Your task to perform on an android device: toggle notification dots Image 0: 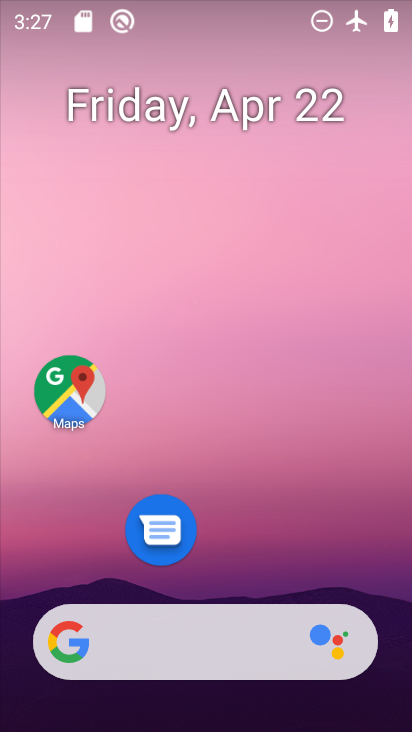
Step 0: drag from (284, 582) to (265, 140)
Your task to perform on an android device: toggle notification dots Image 1: 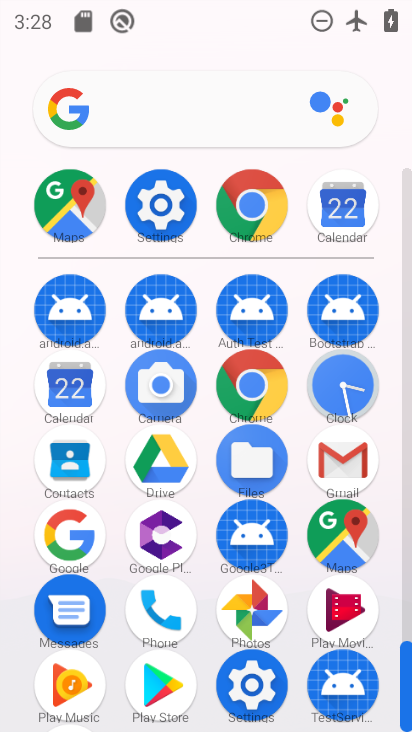
Step 1: click (154, 206)
Your task to perform on an android device: toggle notification dots Image 2: 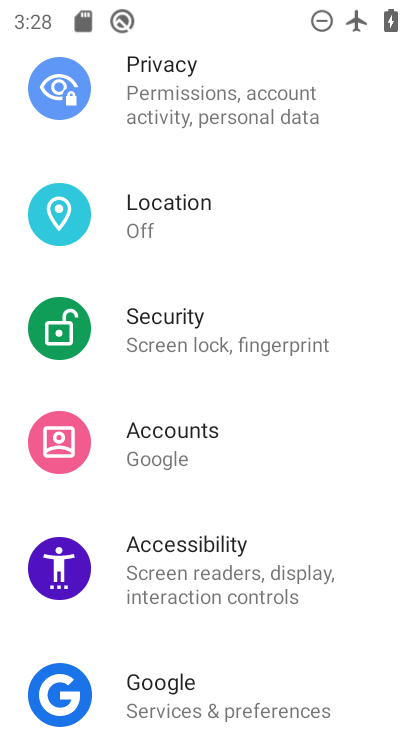
Step 2: drag from (240, 261) to (262, 632)
Your task to perform on an android device: toggle notification dots Image 3: 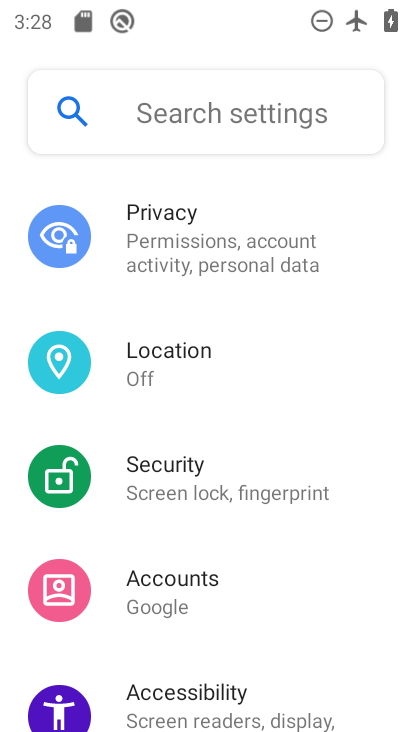
Step 3: drag from (229, 197) to (204, 682)
Your task to perform on an android device: toggle notification dots Image 4: 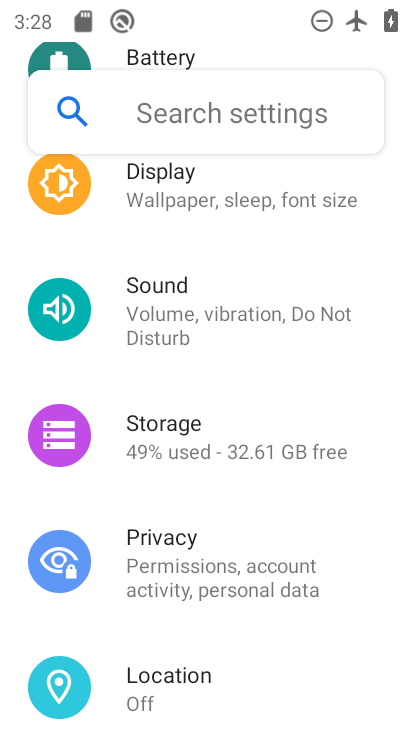
Step 4: drag from (186, 251) to (196, 596)
Your task to perform on an android device: toggle notification dots Image 5: 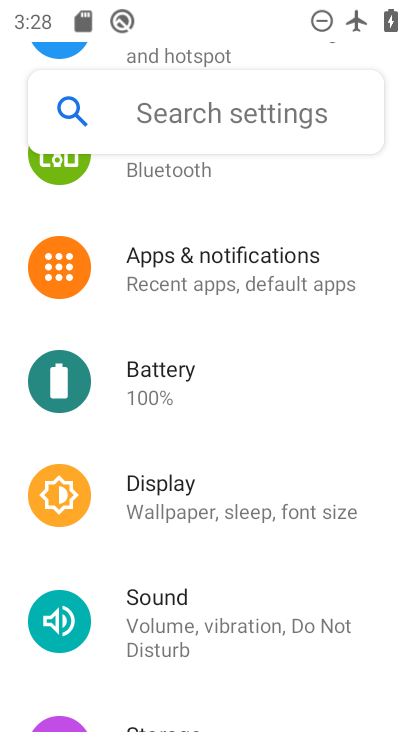
Step 5: click (211, 254)
Your task to perform on an android device: toggle notification dots Image 6: 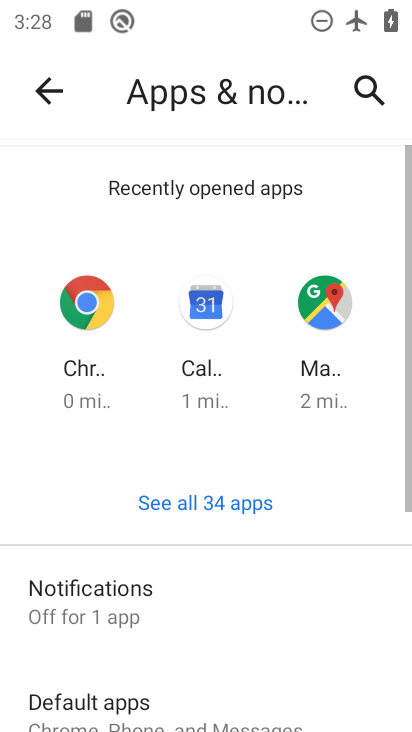
Step 6: drag from (164, 584) to (145, 200)
Your task to perform on an android device: toggle notification dots Image 7: 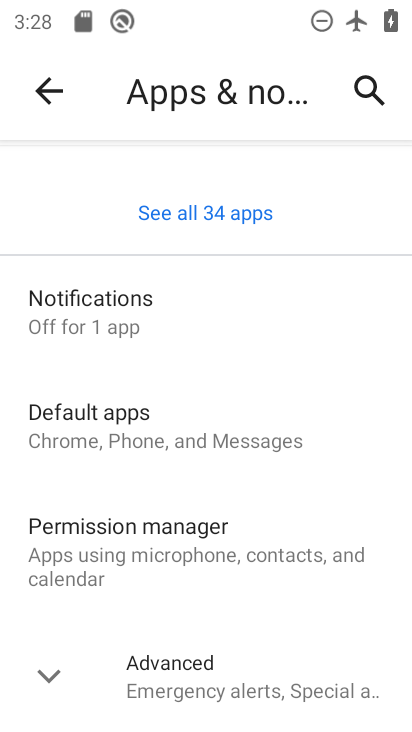
Step 7: click (107, 299)
Your task to perform on an android device: toggle notification dots Image 8: 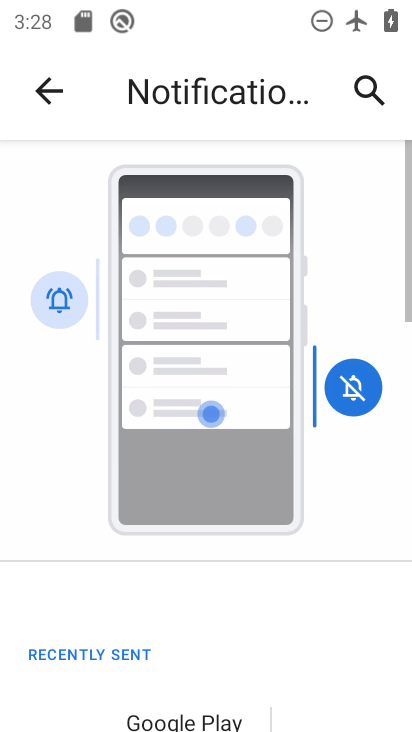
Step 8: drag from (192, 608) to (155, 137)
Your task to perform on an android device: toggle notification dots Image 9: 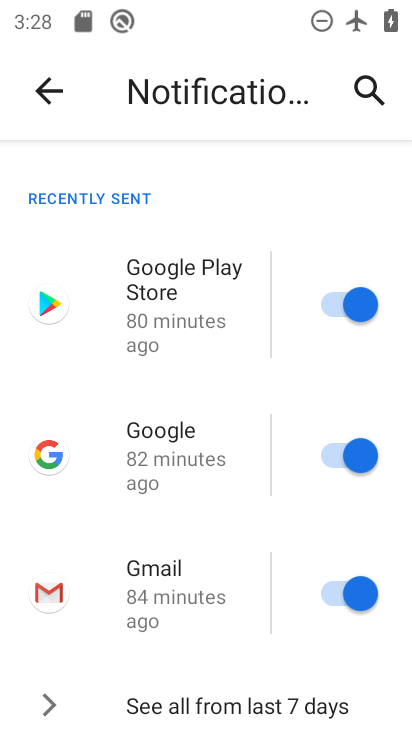
Step 9: drag from (189, 603) to (143, 125)
Your task to perform on an android device: toggle notification dots Image 10: 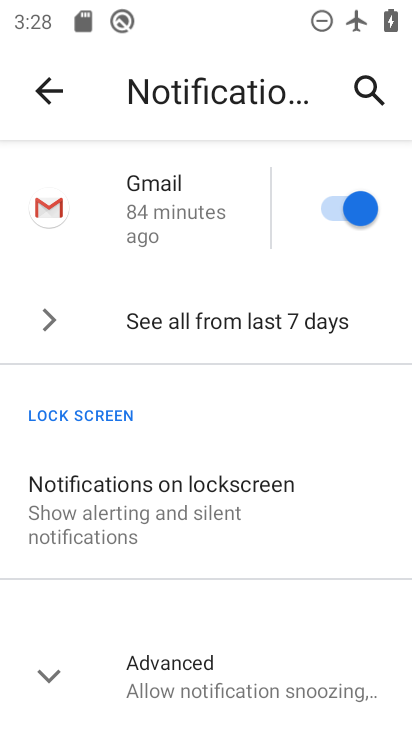
Step 10: click (49, 680)
Your task to perform on an android device: toggle notification dots Image 11: 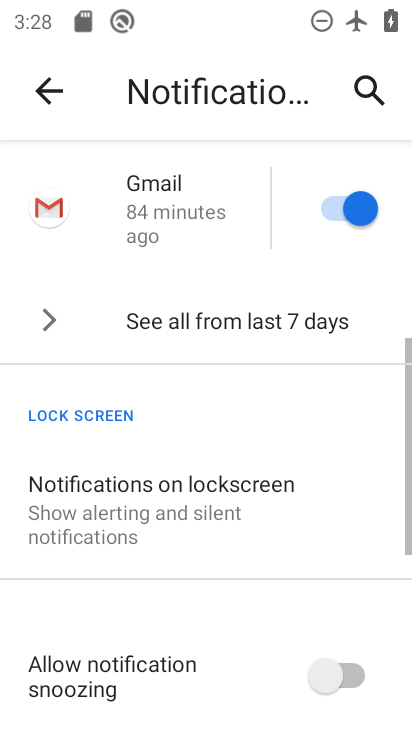
Step 11: drag from (189, 661) to (141, 188)
Your task to perform on an android device: toggle notification dots Image 12: 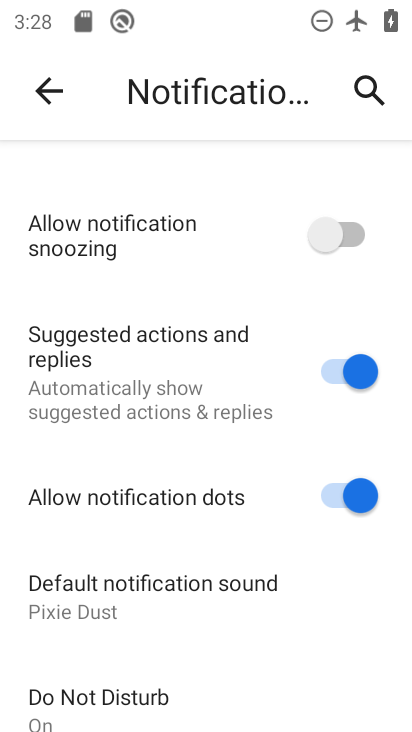
Step 12: click (366, 490)
Your task to perform on an android device: toggle notification dots Image 13: 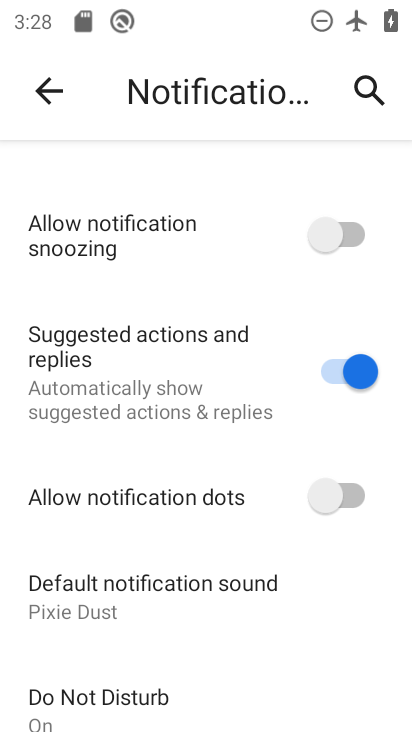
Step 13: task complete